Your task to perform on an android device: Open Yahoo.com Image 0: 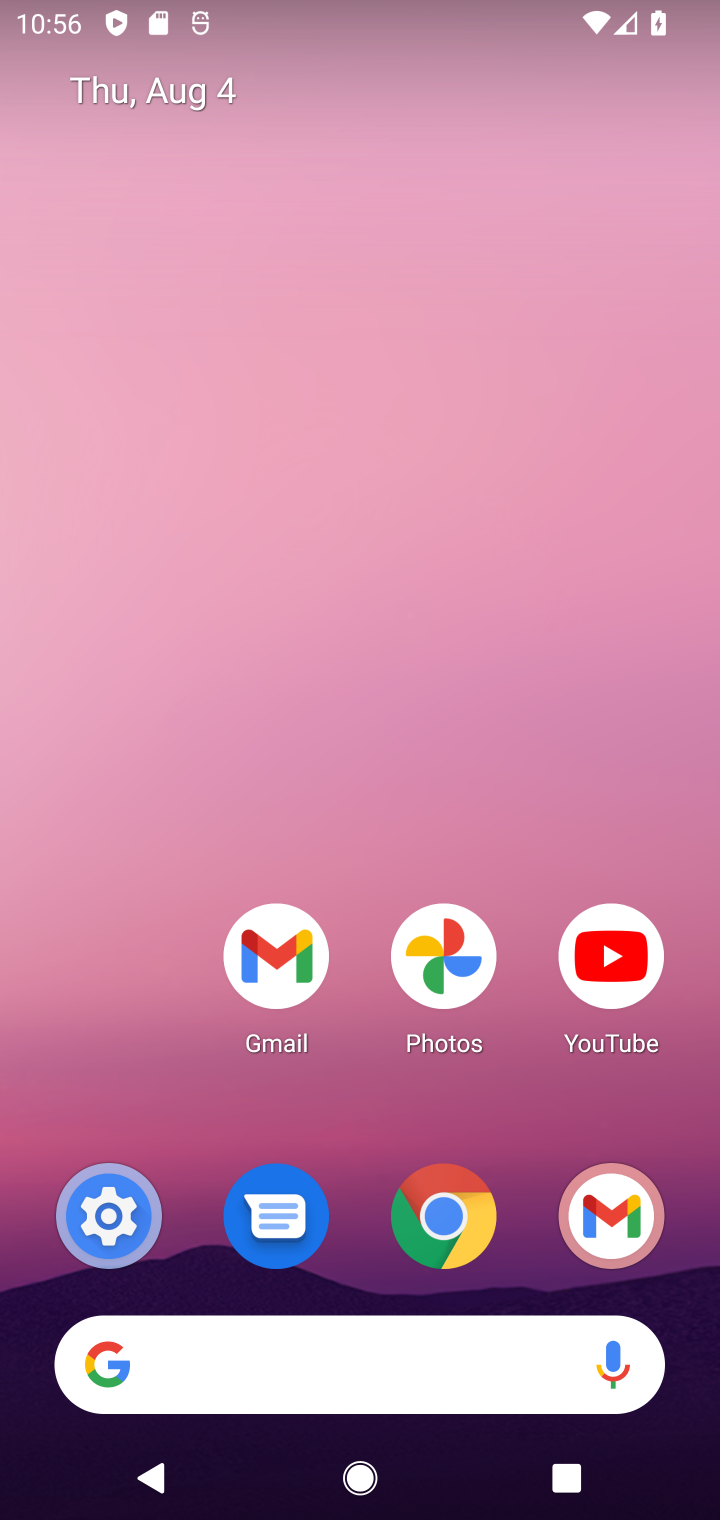
Step 0: click (421, 1379)
Your task to perform on an android device: Open Yahoo.com Image 1: 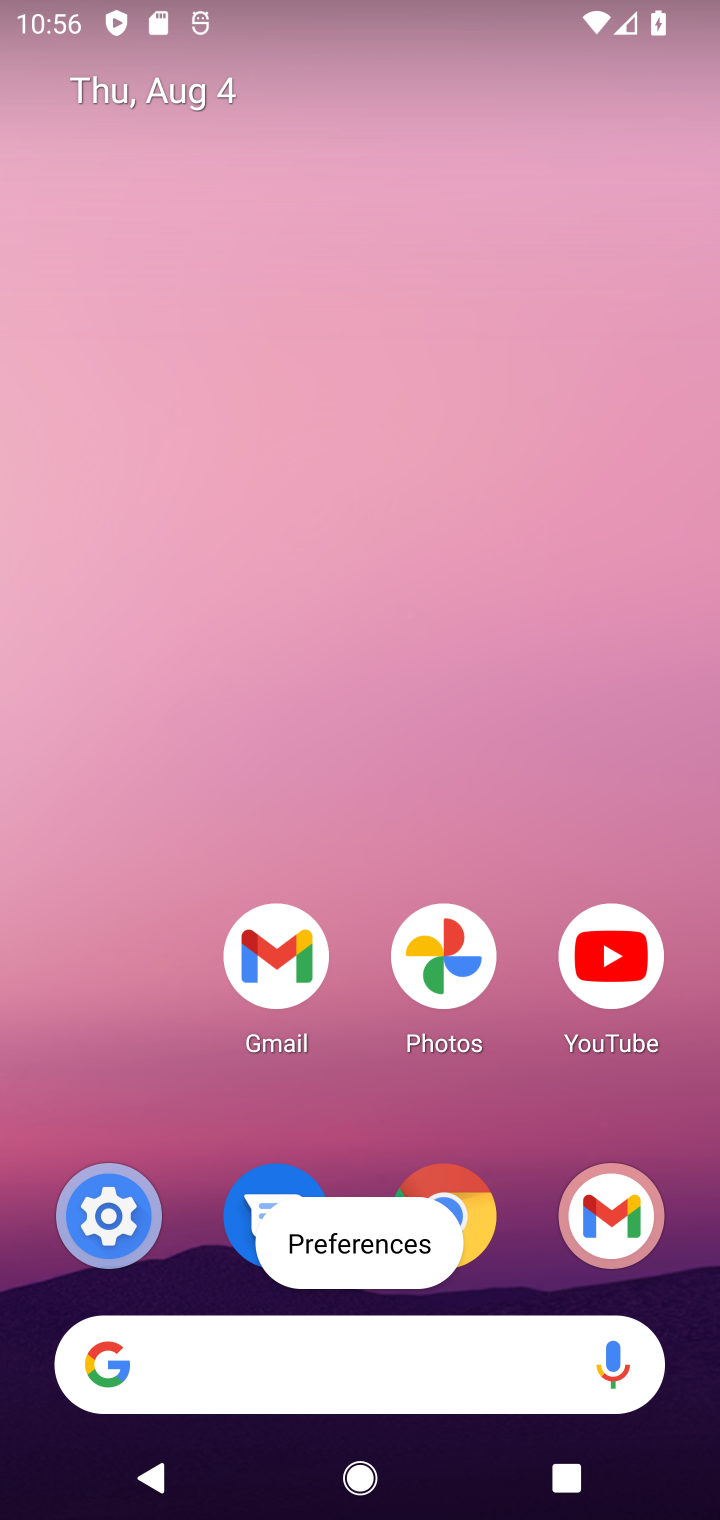
Step 1: click (421, 1372)
Your task to perform on an android device: Open Yahoo.com Image 2: 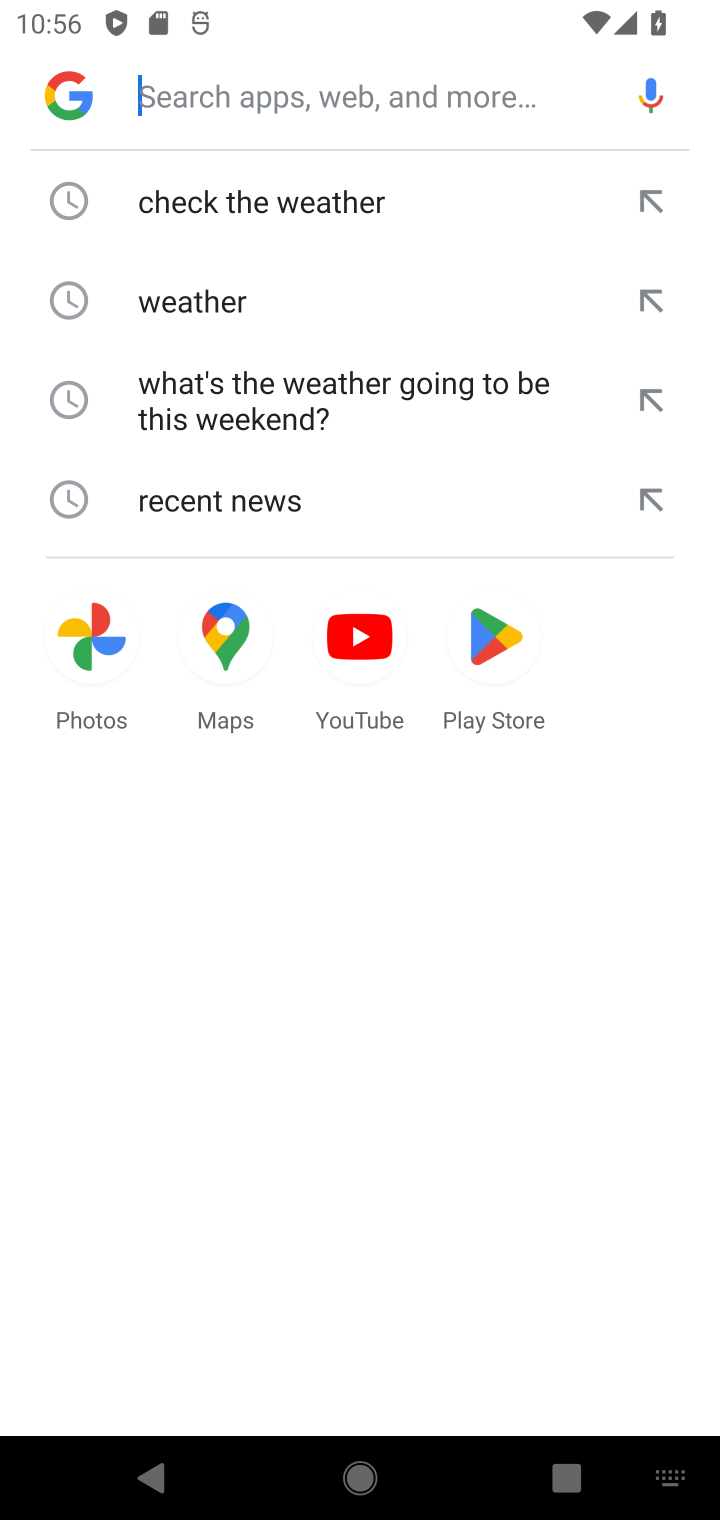
Step 2: type "yahoo.com"
Your task to perform on an android device: Open Yahoo.com Image 3: 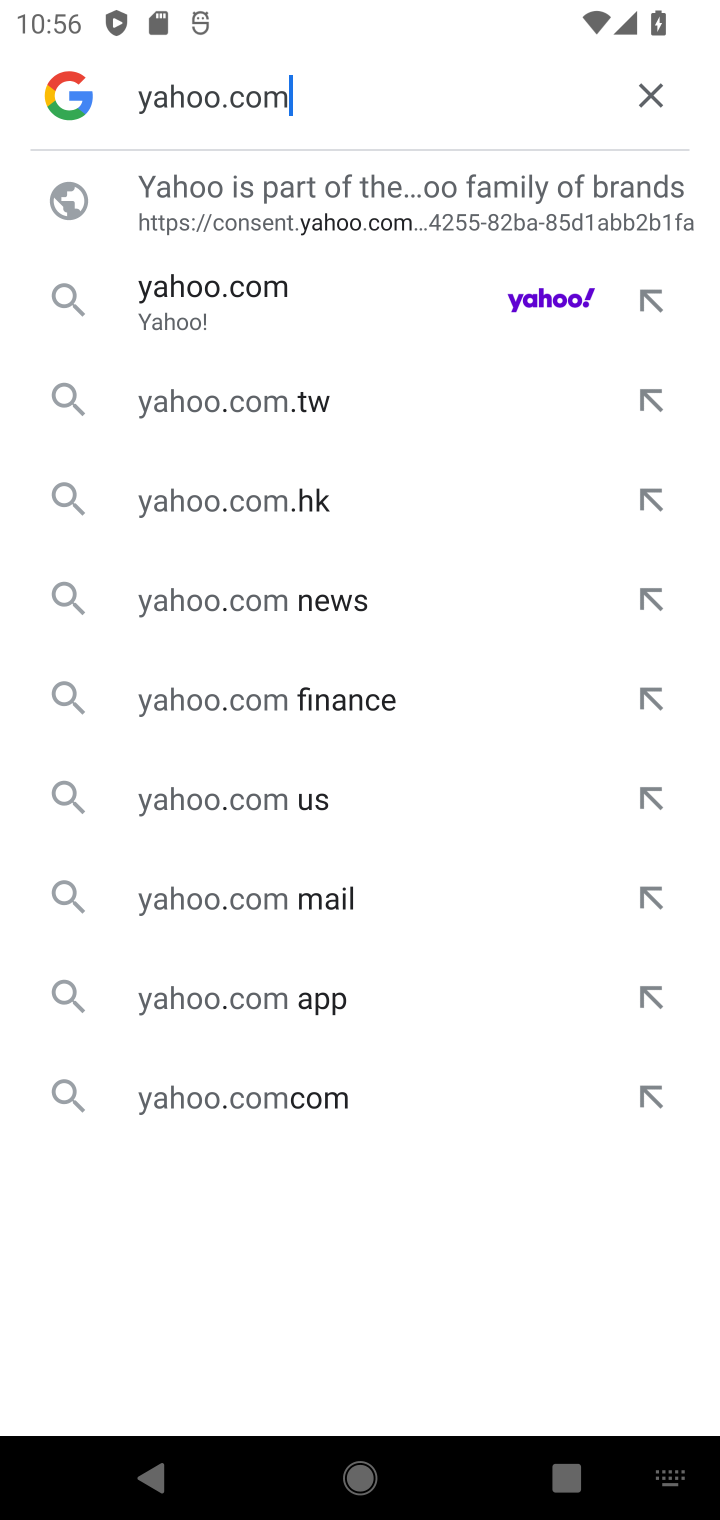
Step 3: click (289, 295)
Your task to perform on an android device: Open Yahoo.com Image 4: 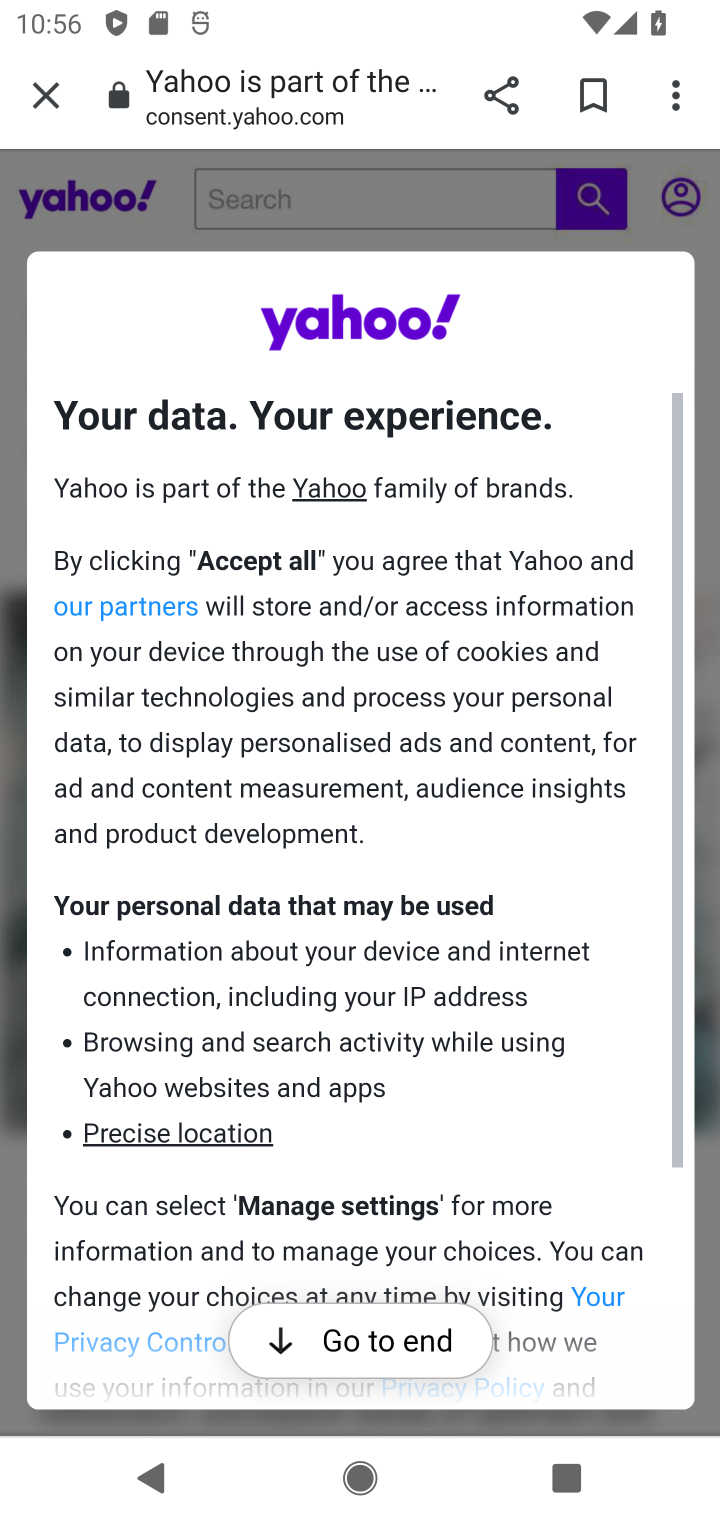
Step 4: click (393, 1335)
Your task to perform on an android device: Open Yahoo.com Image 5: 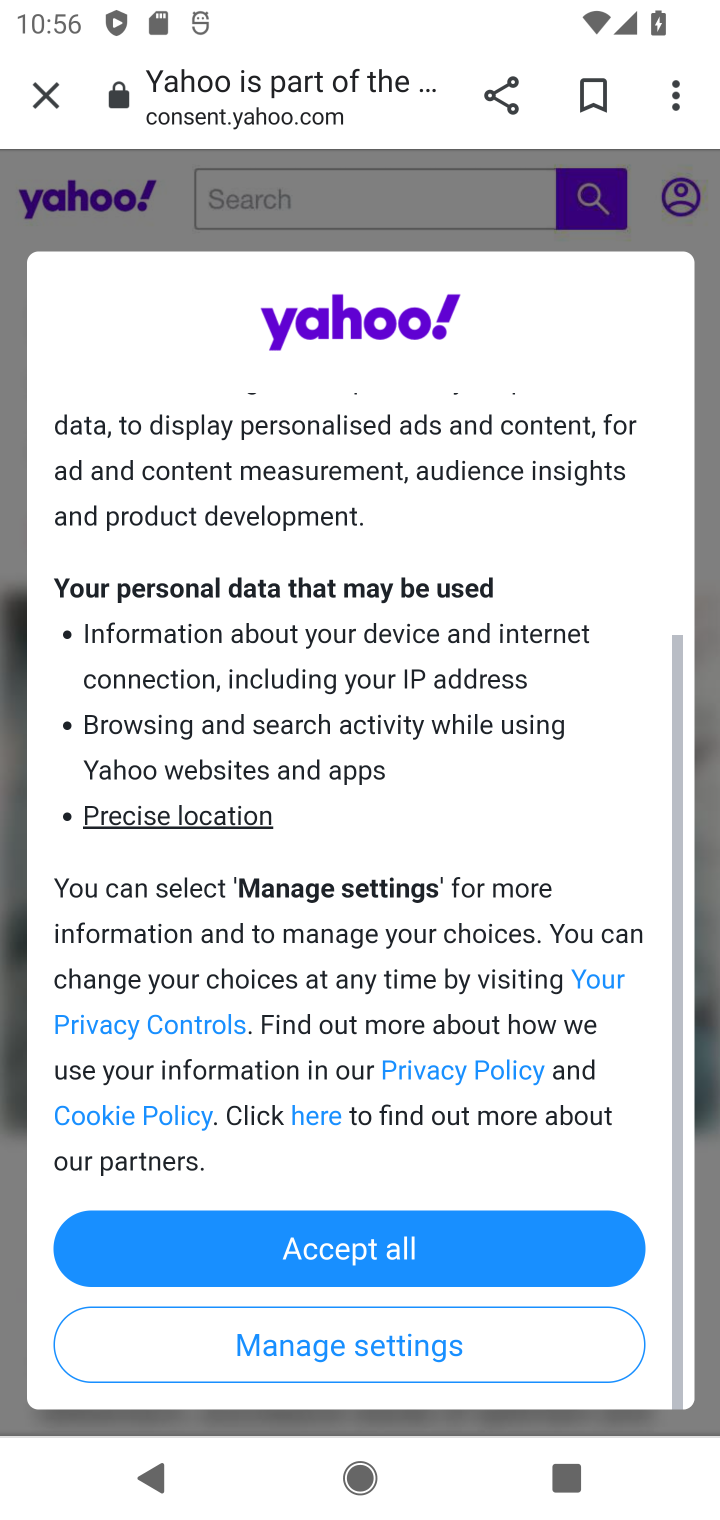
Step 5: click (428, 1250)
Your task to perform on an android device: Open Yahoo.com Image 6: 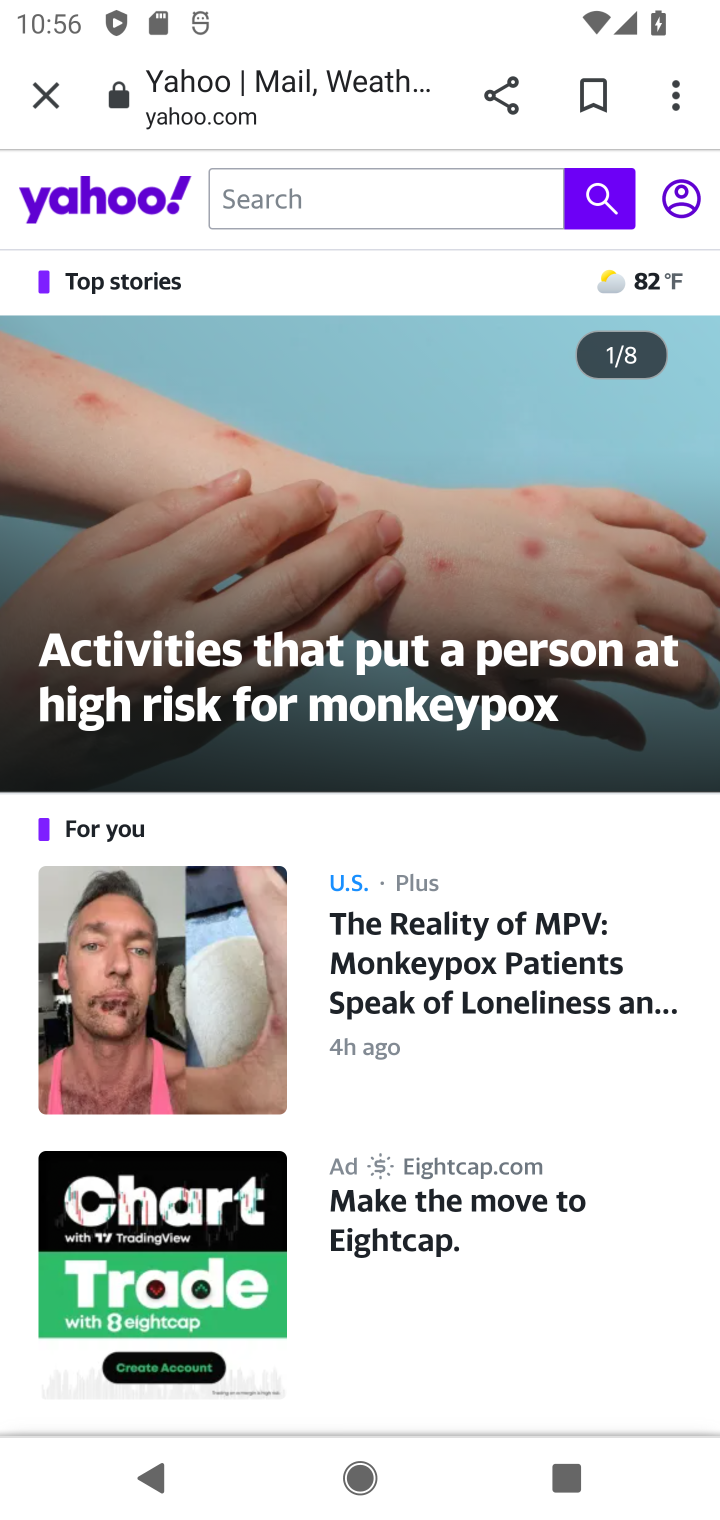
Step 6: task complete